Your task to perform on an android device: What's the weather going to be tomorrow? Image 0: 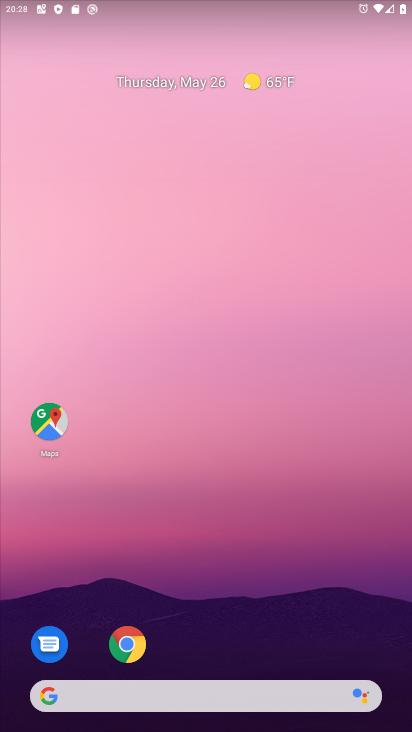
Step 0: drag from (256, 641) to (250, 253)
Your task to perform on an android device: What's the weather going to be tomorrow? Image 1: 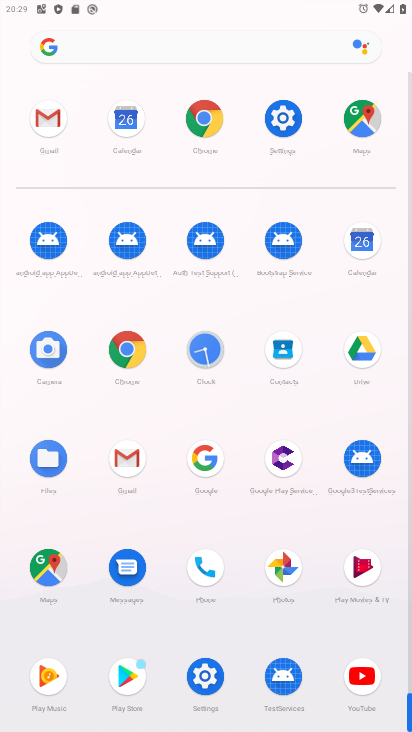
Step 1: click (176, 39)
Your task to perform on an android device: What's the weather going to be tomorrow? Image 2: 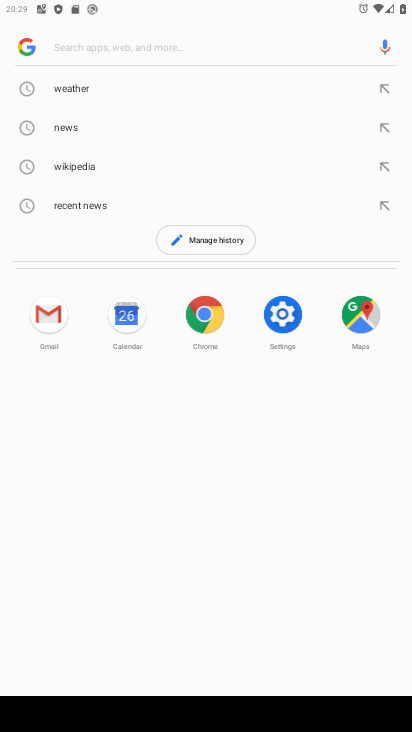
Step 2: type "weather going to be tomorrow?"
Your task to perform on an android device: What's the weather going to be tomorrow? Image 3: 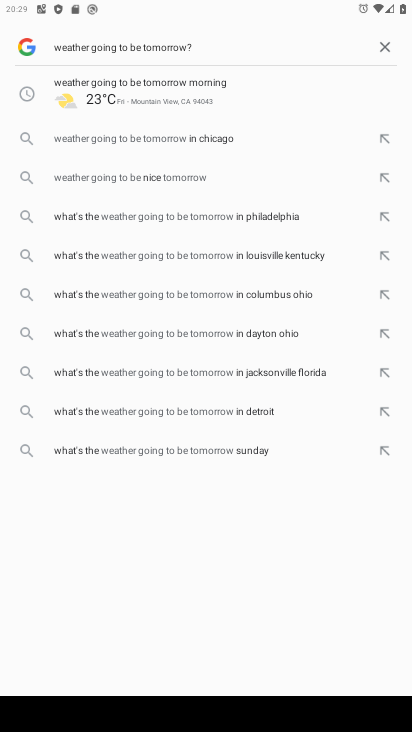
Step 3: click (168, 92)
Your task to perform on an android device: What's the weather going to be tomorrow? Image 4: 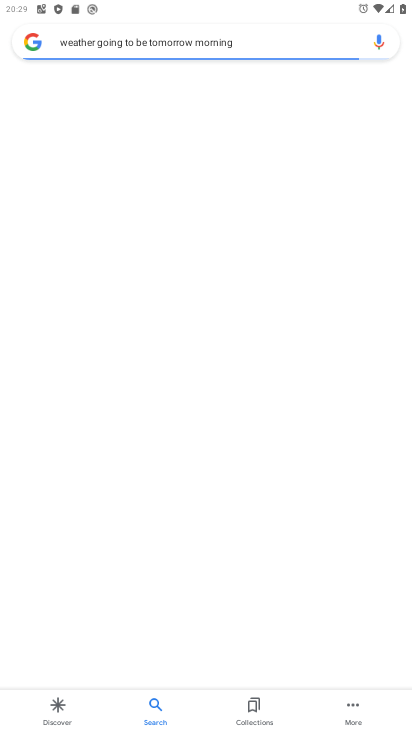
Step 4: task complete